Your task to perform on an android device: Open location settings Image 0: 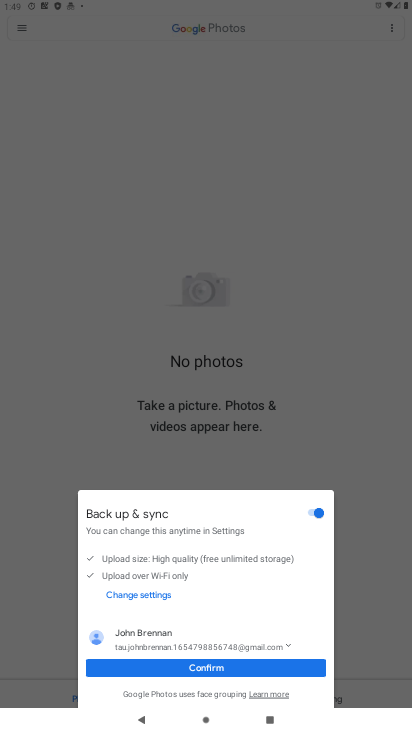
Step 0: press home button
Your task to perform on an android device: Open location settings Image 1: 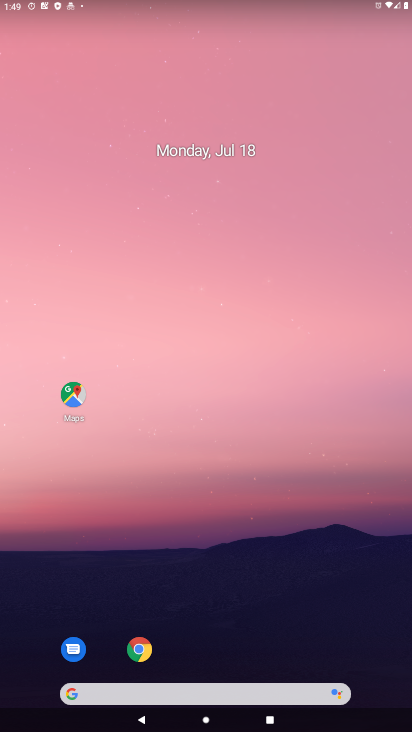
Step 1: drag from (210, 650) to (121, 122)
Your task to perform on an android device: Open location settings Image 2: 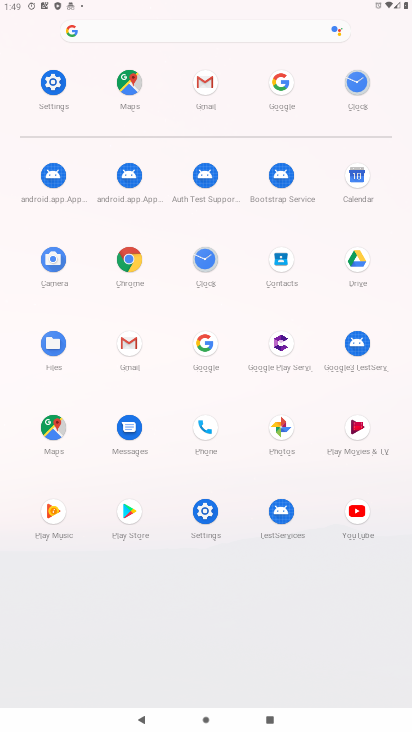
Step 2: click (61, 86)
Your task to perform on an android device: Open location settings Image 3: 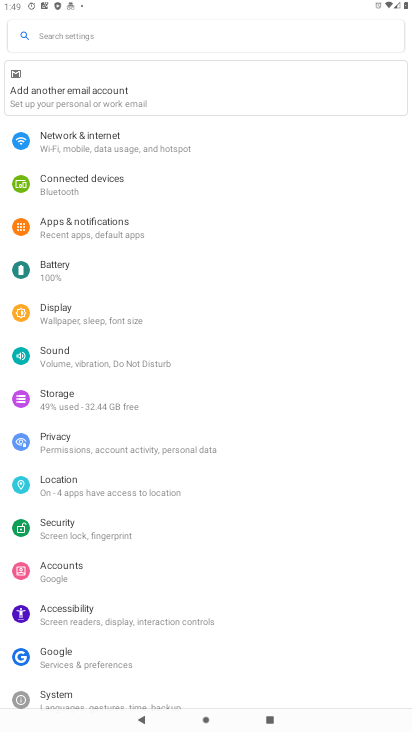
Step 3: click (52, 487)
Your task to perform on an android device: Open location settings Image 4: 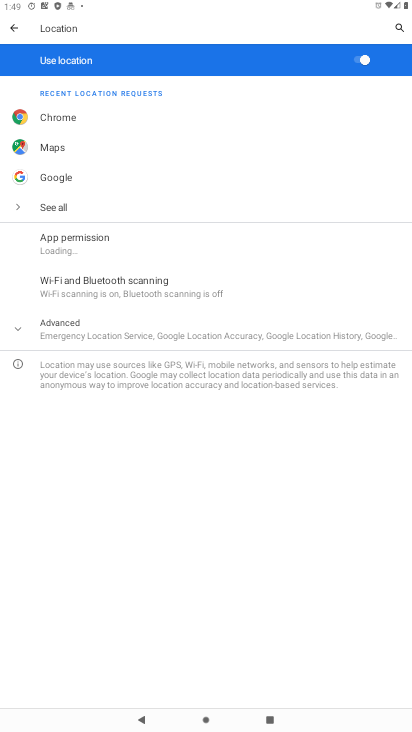
Step 4: click (58, 320)
Your task to perform on an android device: Open location settings Image 5: 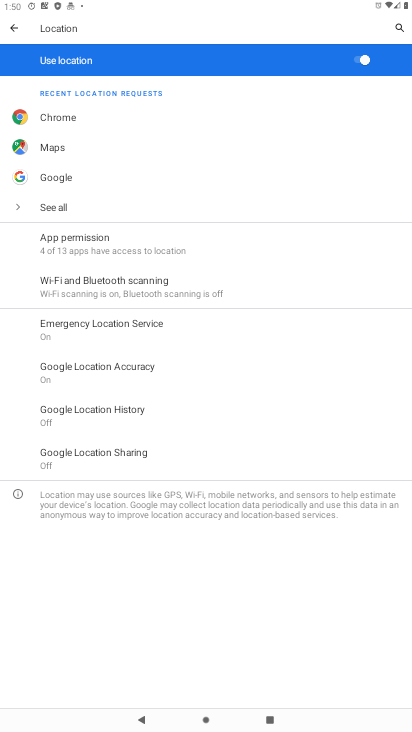
Step 5: task complete